Your task to perform on an android device: change the clock style Image 0: 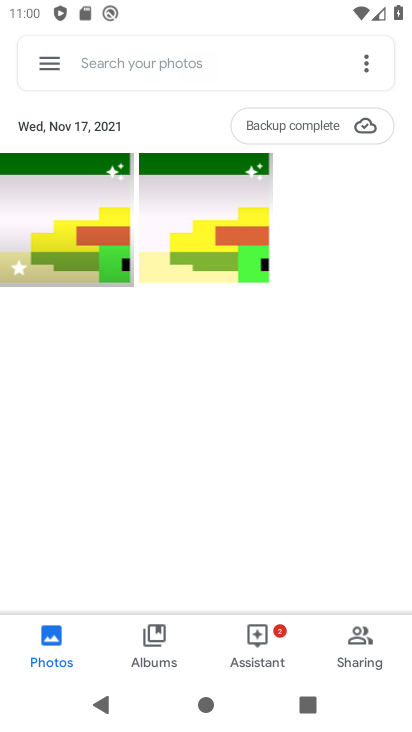
Step 0: press home button
Your task to perform on an android device: change the clock style Image 1: 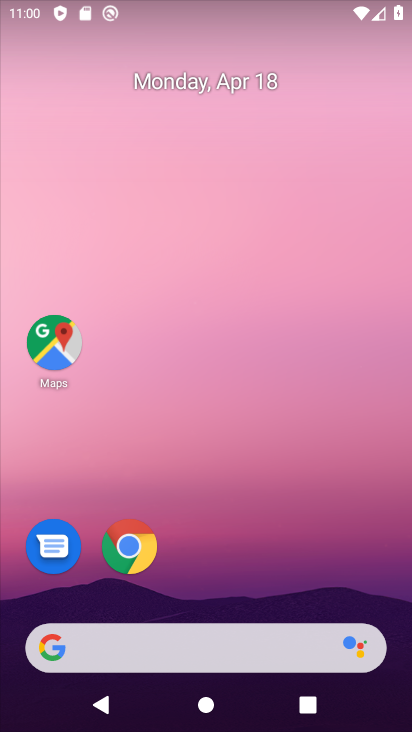
Step 1: drag from (371, 565) to (365, 116)
Your task to perform on an android device: change the clock style Image 2: 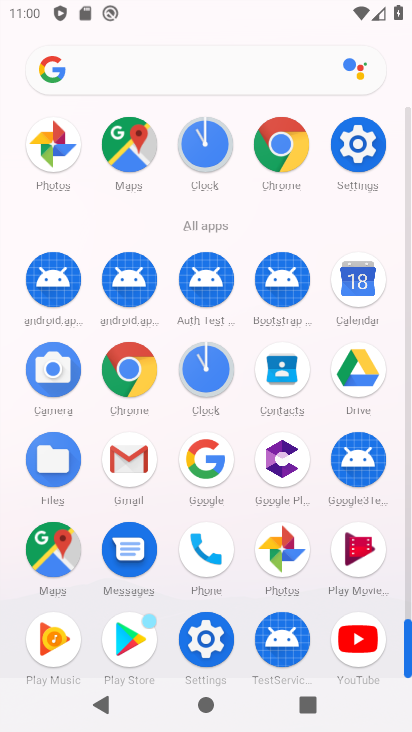
Step 2: click (198, 375)
Your task to perform on an android device: change the clock style Image 3: 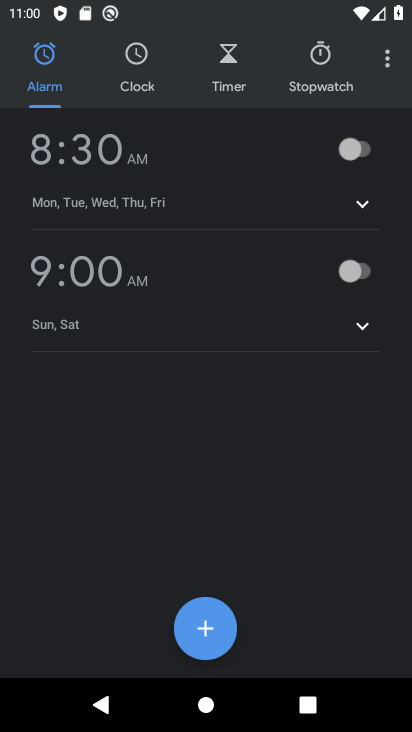
Step 3: click (385, 64)
Your task to perform on an android device: change the clock style Image 4: 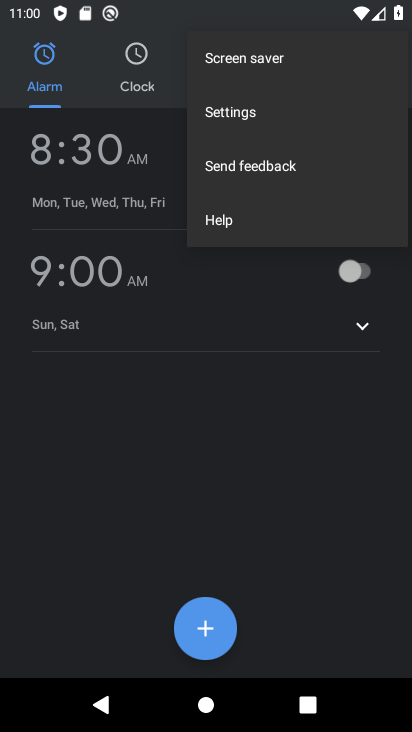
Step 4: click (252, 110)
Your task to perform on an android device: change the clock style Image 5: 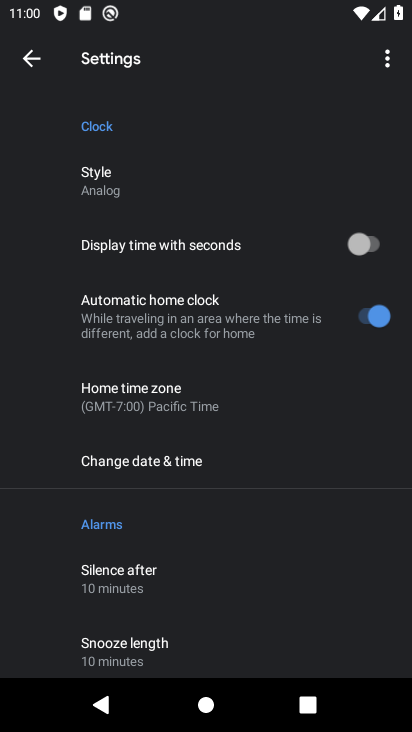
Step 5: drag from (301, 543) to (317, 396)
Your task to perform on an android device: change the clock style Image 6: 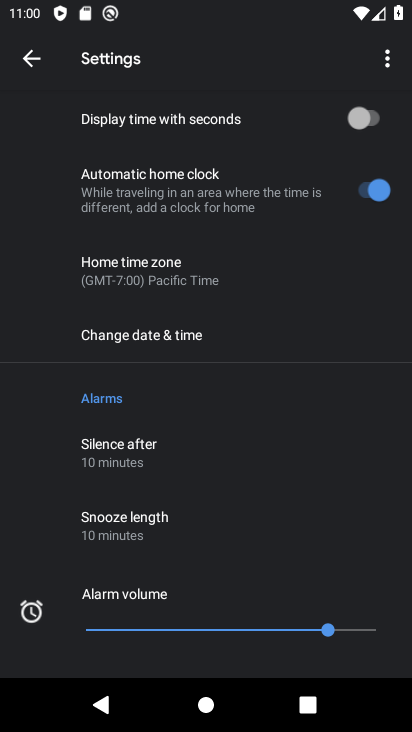
Step 6: drag from (313, 499) to (331, 328)
Your task to perform on an android device: change the clock style Image 7: 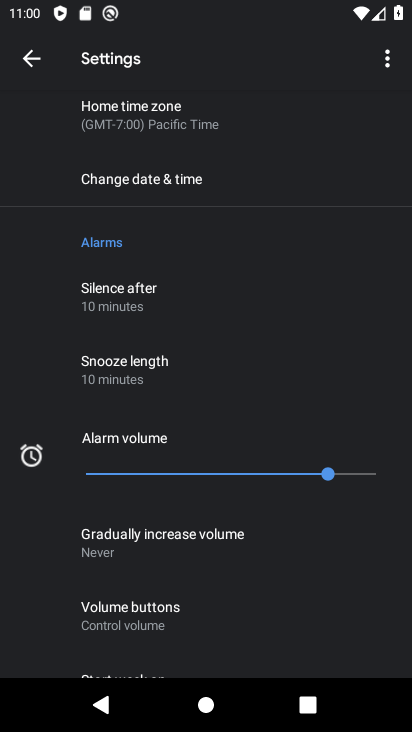
Step 7: drag from (326, 558) to (363, 247)
Your task to perform on an android device: change the clock style Image 8: 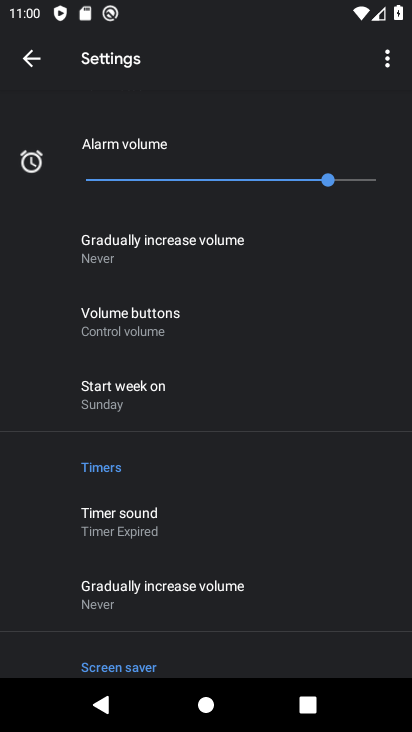
Step 8: drag from (371, 254) to (355, 460)
Your task to perform on an android device: change the clock style Image 9: 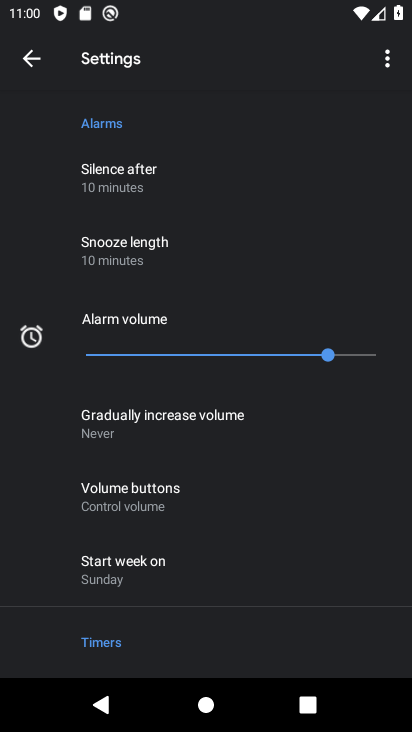
Step 9: drag from (381, 261) to (365, 452)
Your task to perform on an android device: change the clock style Image 10: 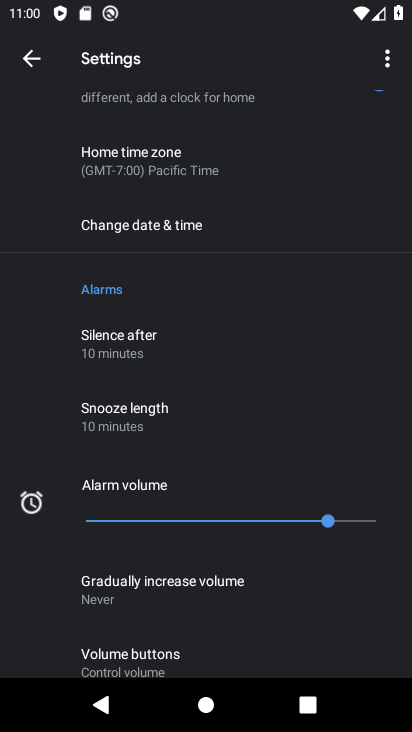
Step 10: drag from (349, 201) to (325, 420)
Your task to perform on an android device: change the clock style Image 11: 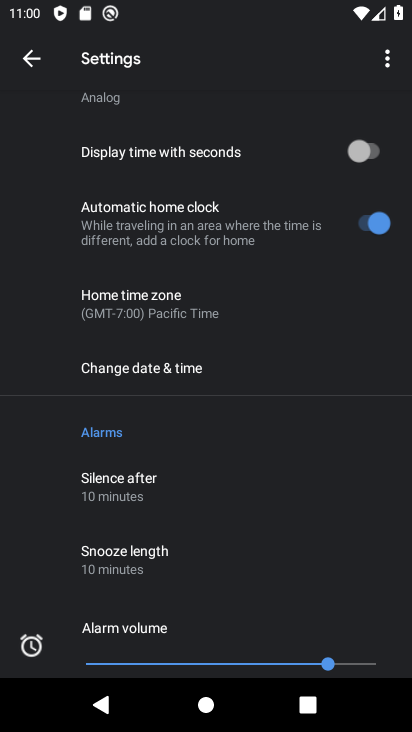
Step 11: drag from (309, 159) to (304, 430)
Your task to perform on an android device: change the clock style Image 12: 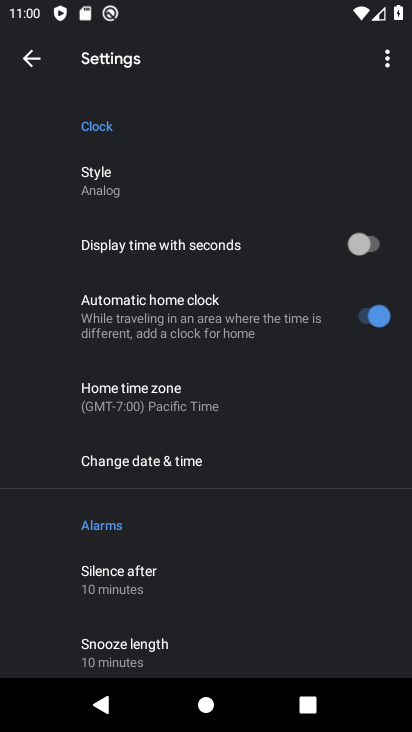
Step 12: click (108, 177)
Your task to perform on an android device: change the clock style Image 13: 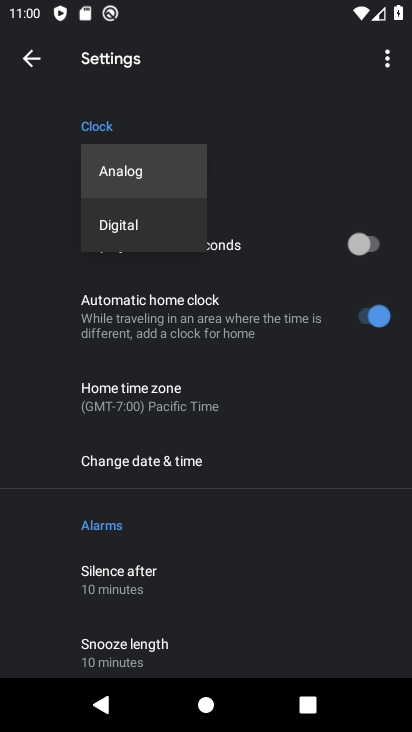
Step 13: click (135, 223)
Your task to perform on an android device: change the clock style Image 14: 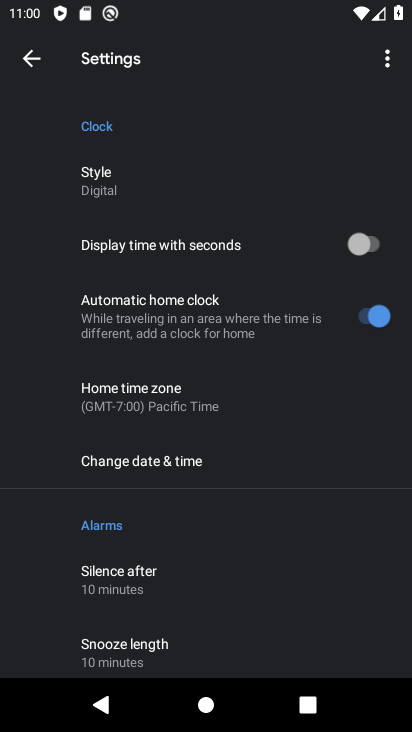
Step 14: task complete